Your task to perform on an android device: Open location settings Image 0: 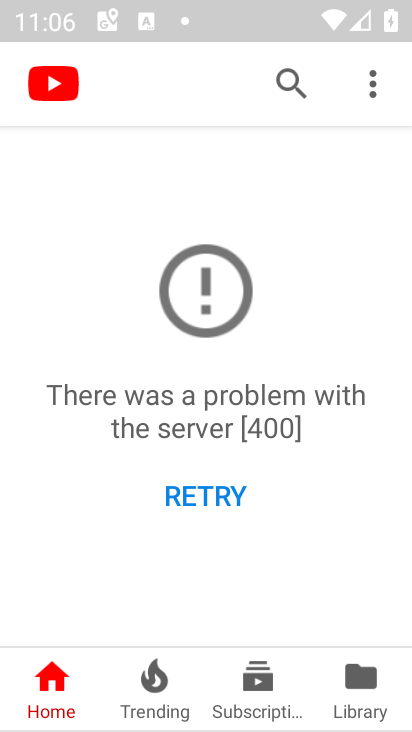
Step 0: press home button
Your task to perform on an android device: Open location settings Image 1: 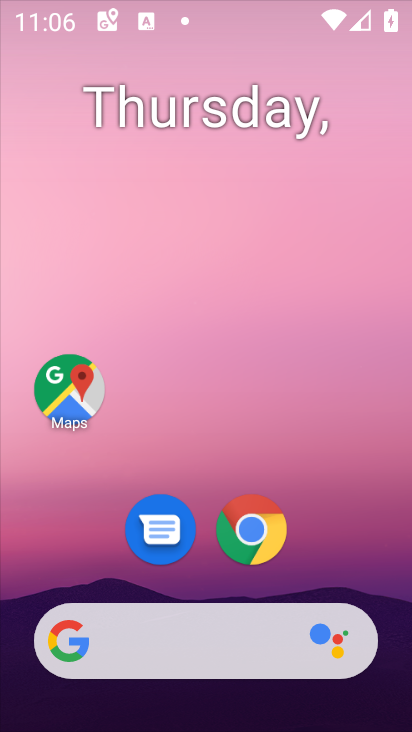
Step 1: drag from (244, 535) to (274, 45)
Your task to perform on an android device: Open location settings Image 2: 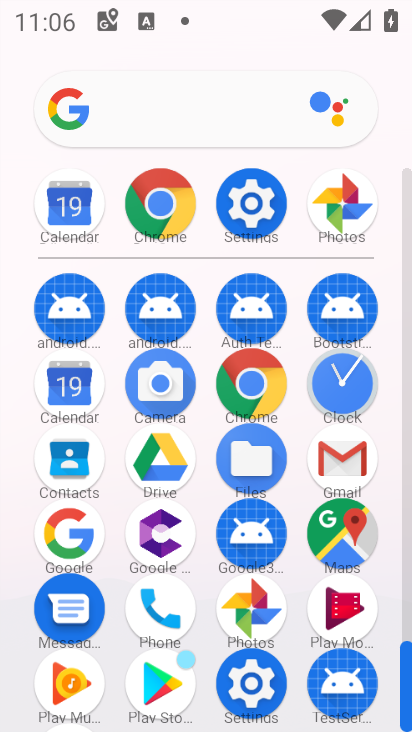
Step 2: click (267, 223)
Your task to perform on an android device: Open location settings Image 3: 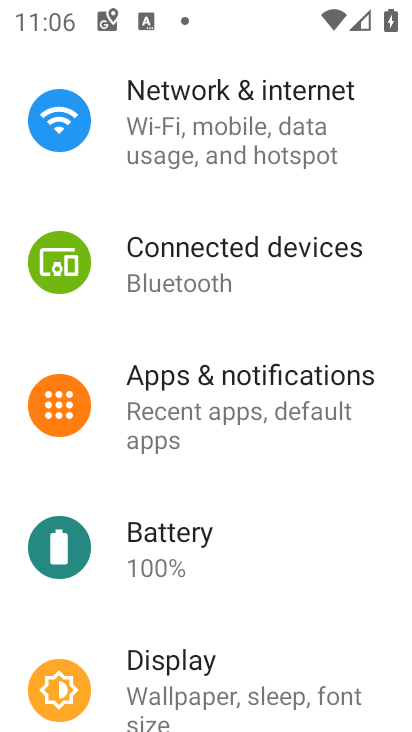
Step 3: drag from (210, 550) to (216, 126)
Your task to perform on an android device: Open location settings Image 4: 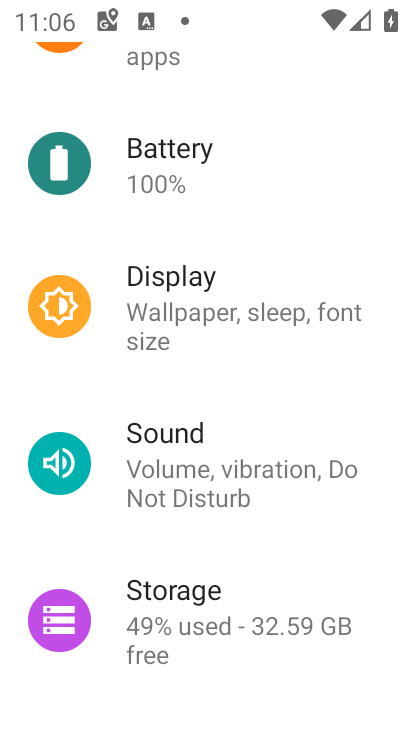
Step 4: drag from (254, 487) to (268, 61)
Your task to perform on an android device: Open location settings Image 5: 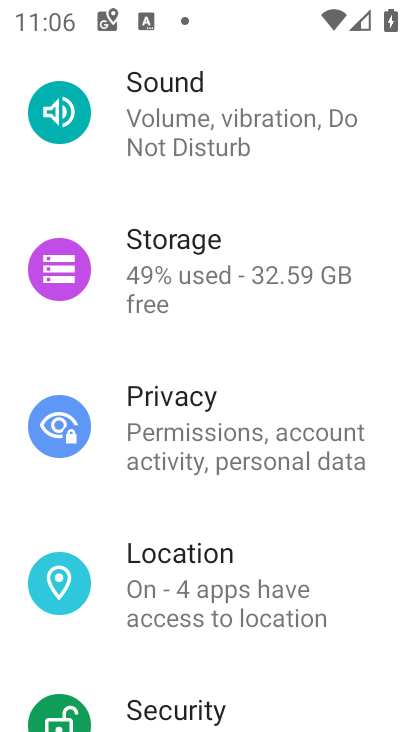
Step 5: click (249, 566)
Your task to perform on an android device: Open location settings Image 6: 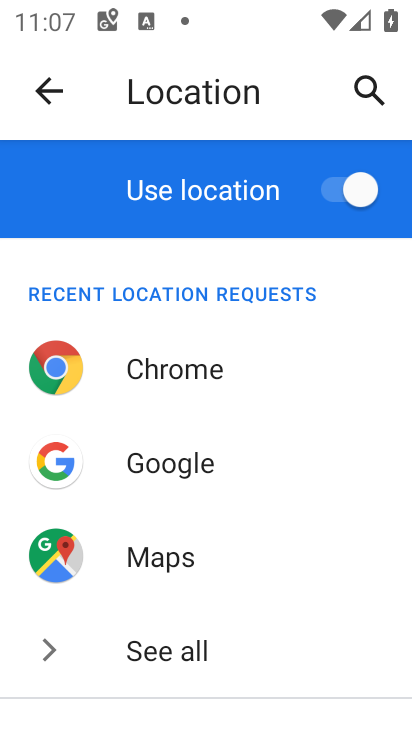
Step 6: task complete